Your task to perform on an android device: Add "macbook pro 13 inch" to the cart on newegg.com Image 0: 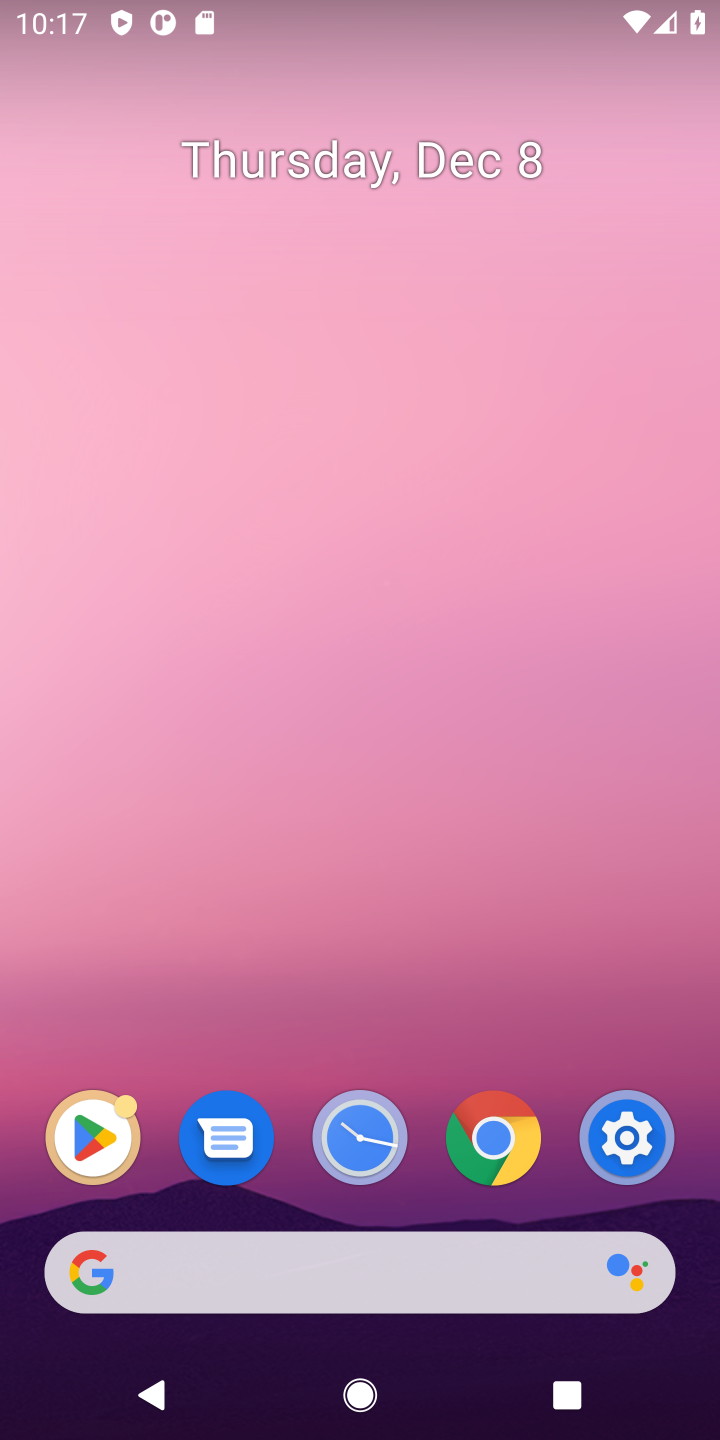
Step 0: click (480, 1145)
Your task to perform on an android device: Add "macbook pro 13 inch" to the cart on newegg.com Image 1: 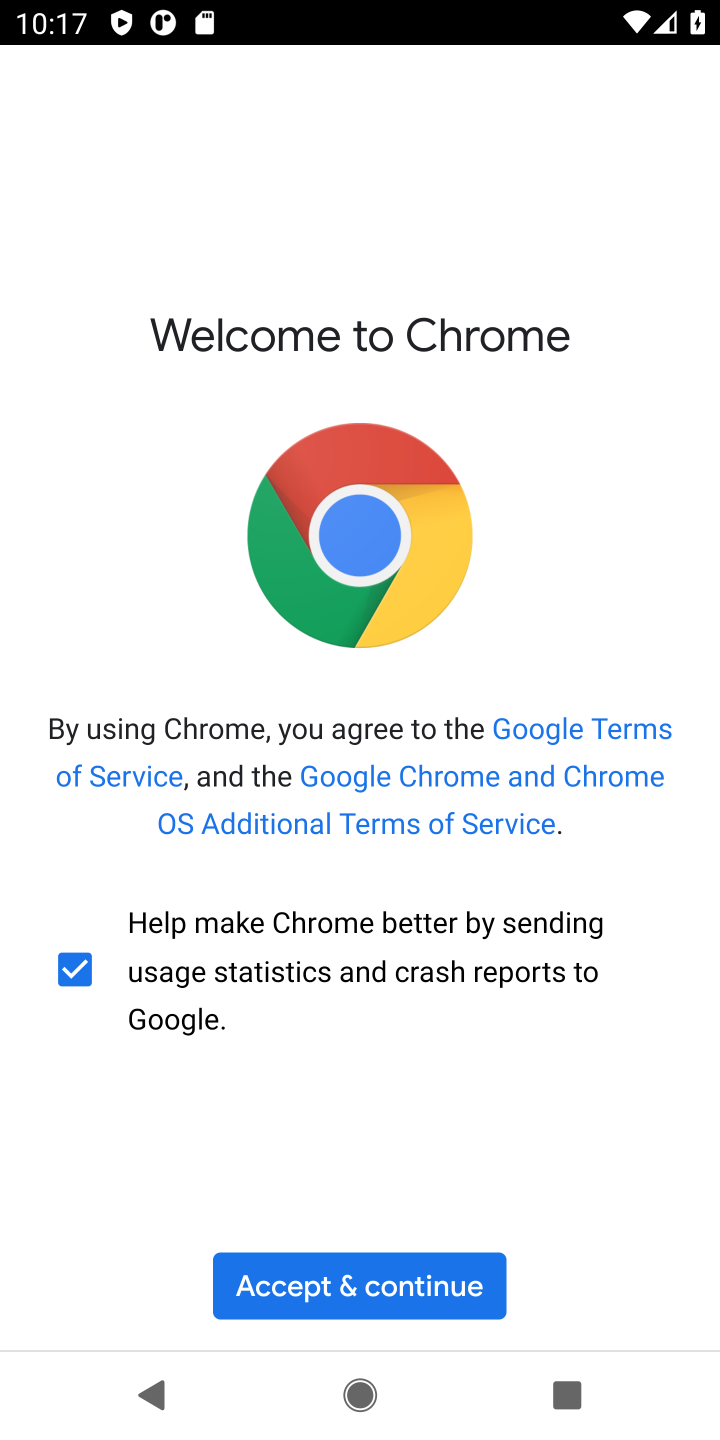
Step 1: click (410, 1274)
Your task to perform on an android device: Add "macbook pro 13 inch" to the cart on newegg.com Image 2: 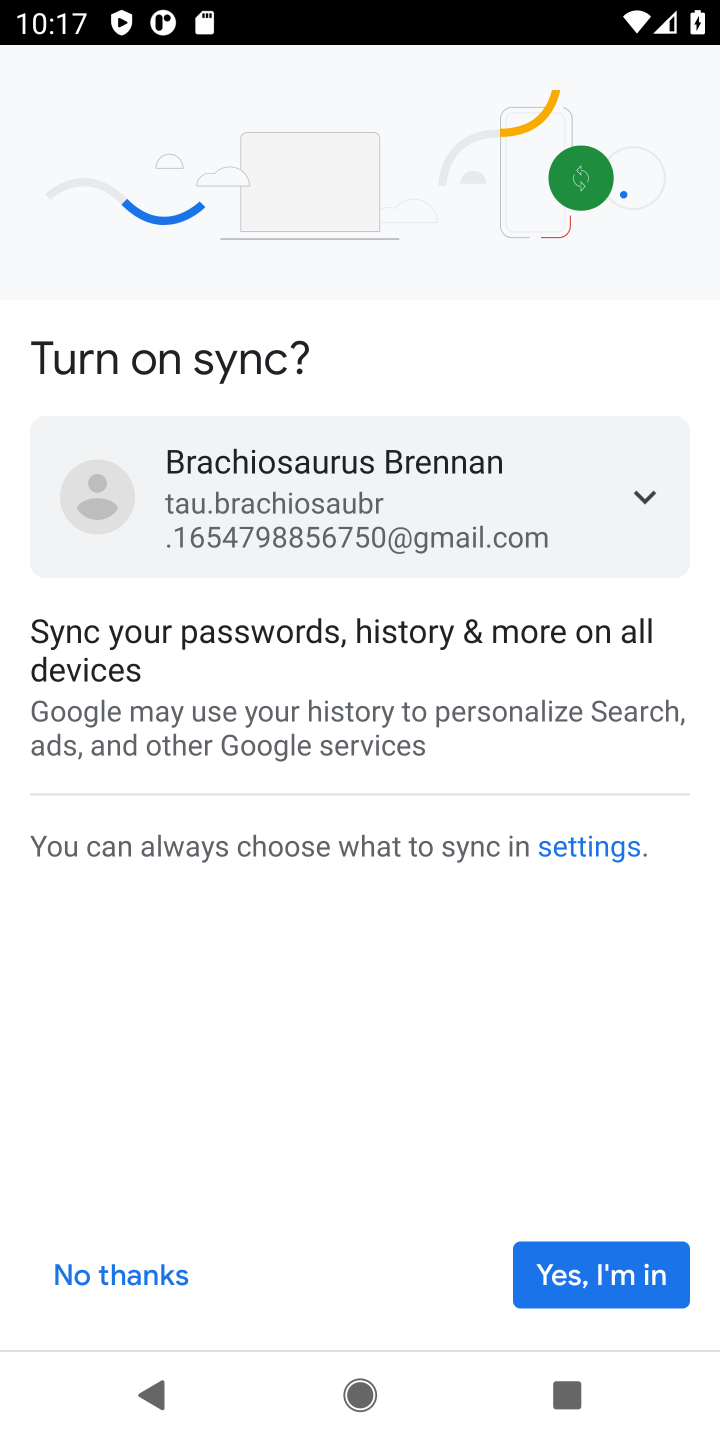
Step 2: click (574, 1261)
Your task to perform on an android device: Add "macbook pro 13 inch" to the cart on newegg.com Image 3: 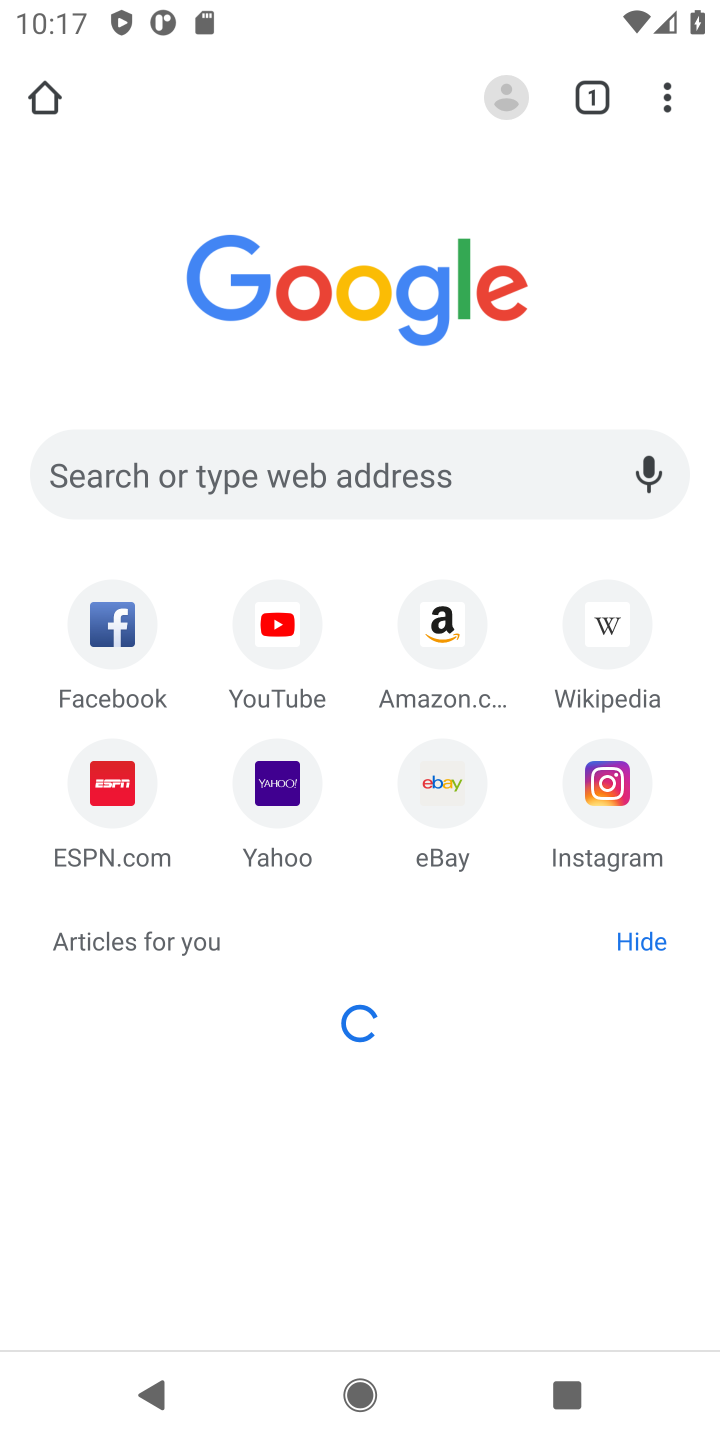
Step 3: click (486, 468)
Your task to perform on an android device: Add "macbook pro 13 inch" to the cart on newegg.com Image 4: 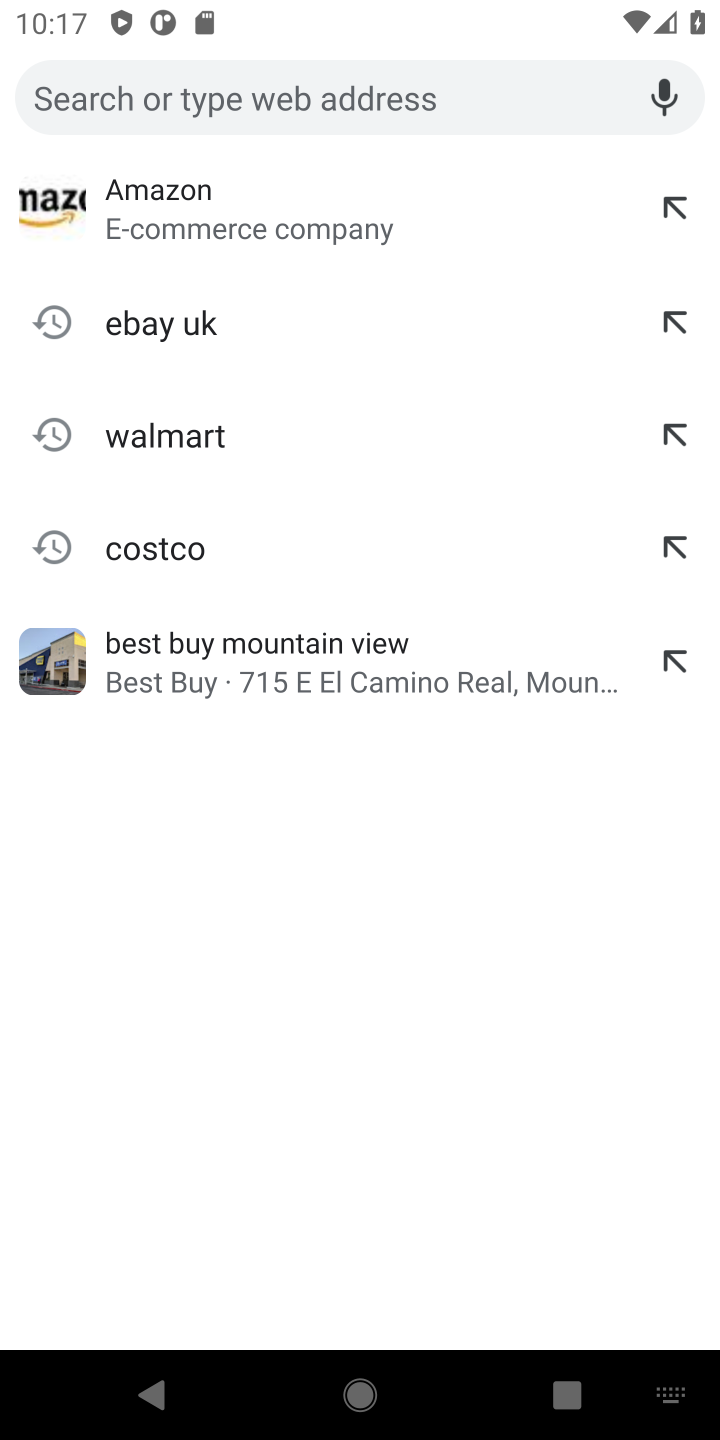
Step 4: type "newegg.com"
Your task to perform on an android device: Add "macbook pro 13 inch" to the cart on newegg.com Image 5: 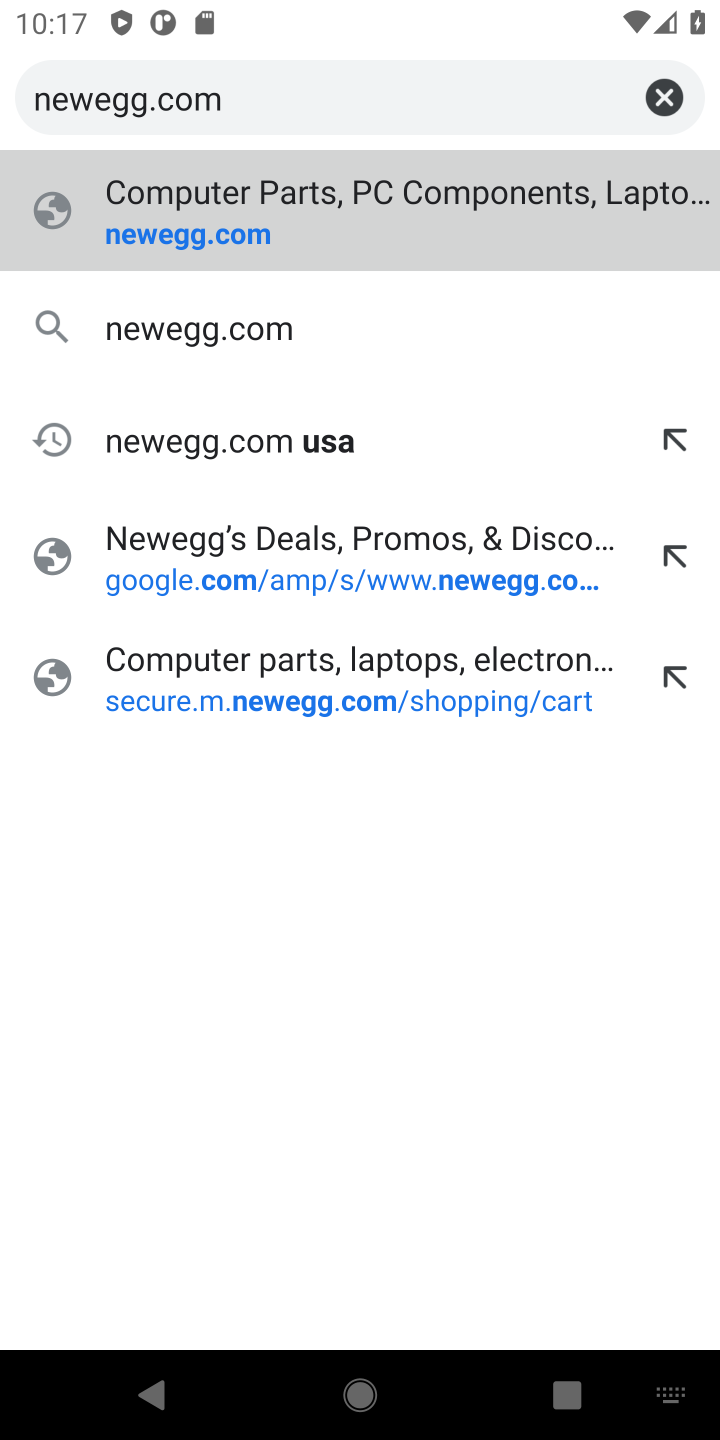
Step 5: press enter
Your task to perform on an android device: Add "macbook pro 13 inch" to the cart on newegg.com Image 6: 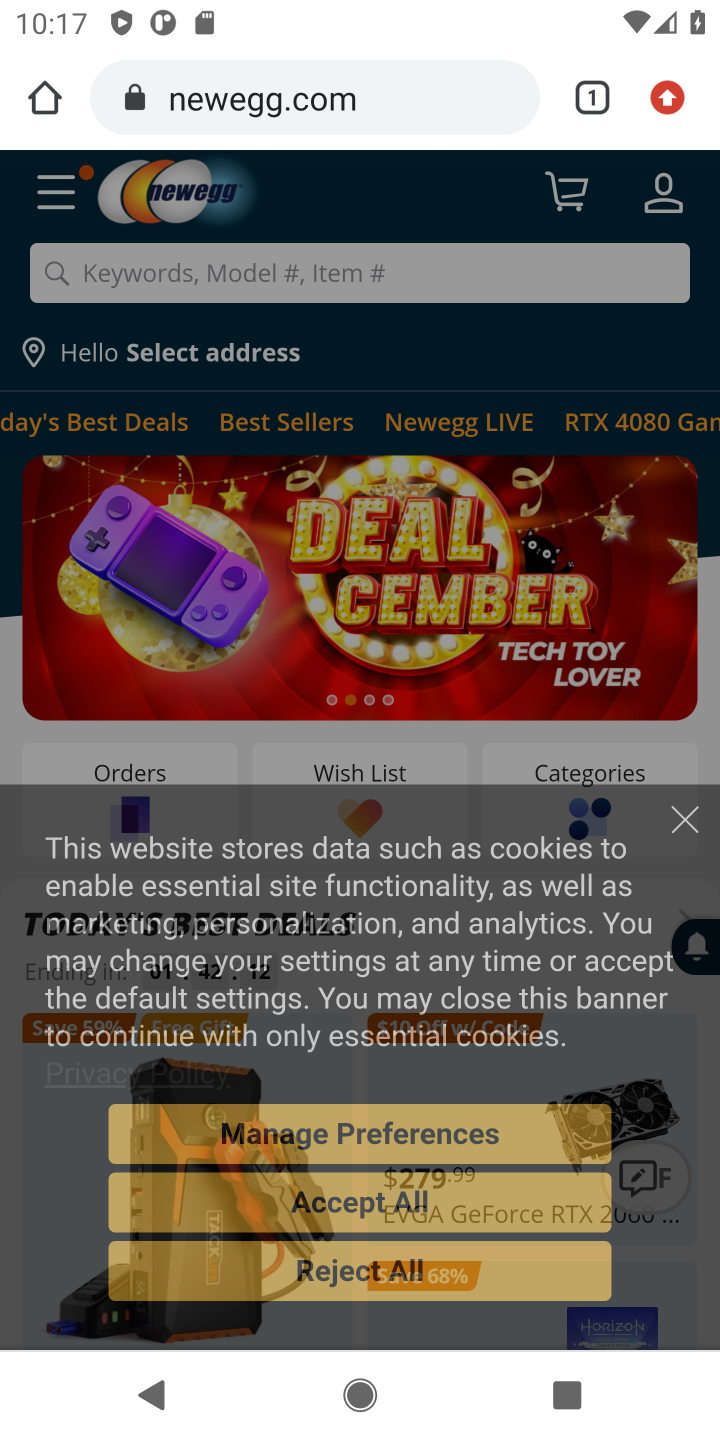
Step 6: click (362, 291)
Your task to perform on an android device: Add "macbook pro 13 inch" to the cart on newegg.com Image 7: 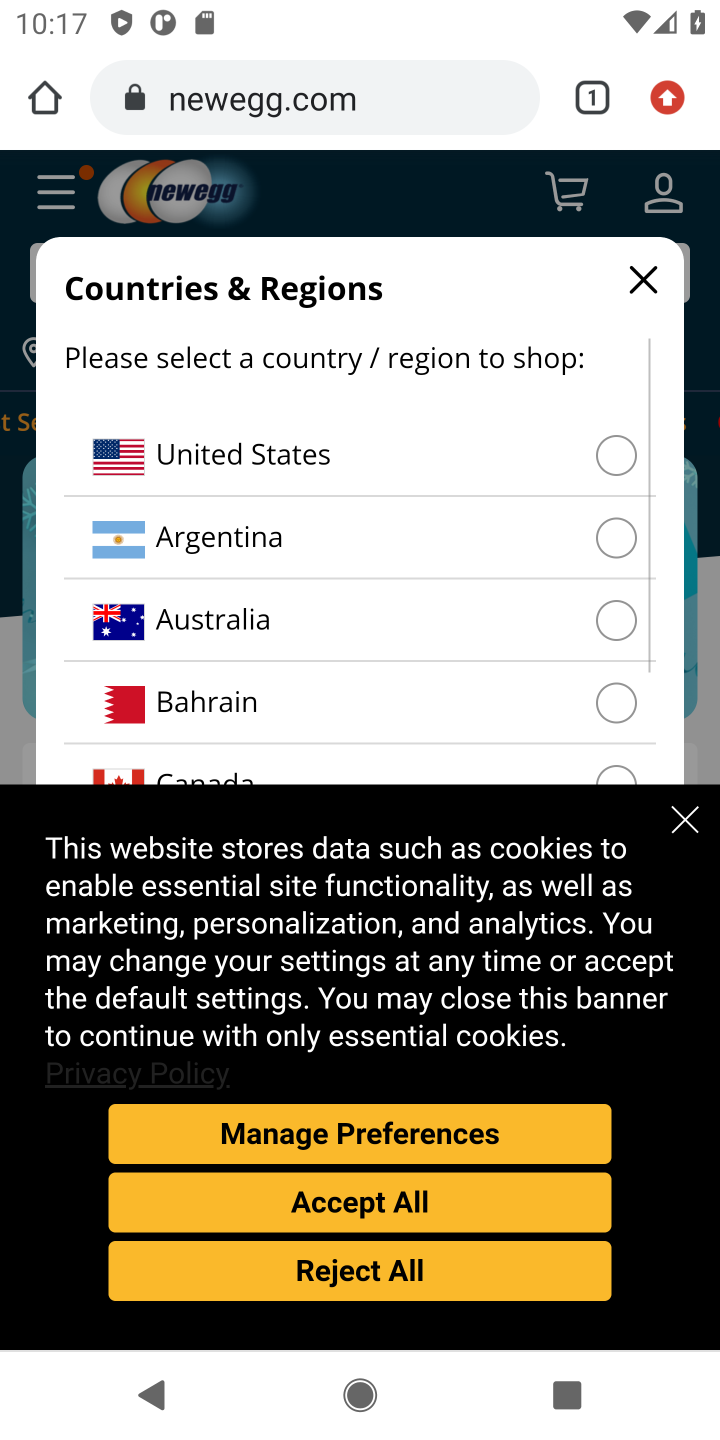
Step 7: click (616, 457)
Your task to perform on an android device: Add "macbook pro 13 inch" to the cart on newegg.com Image 8: 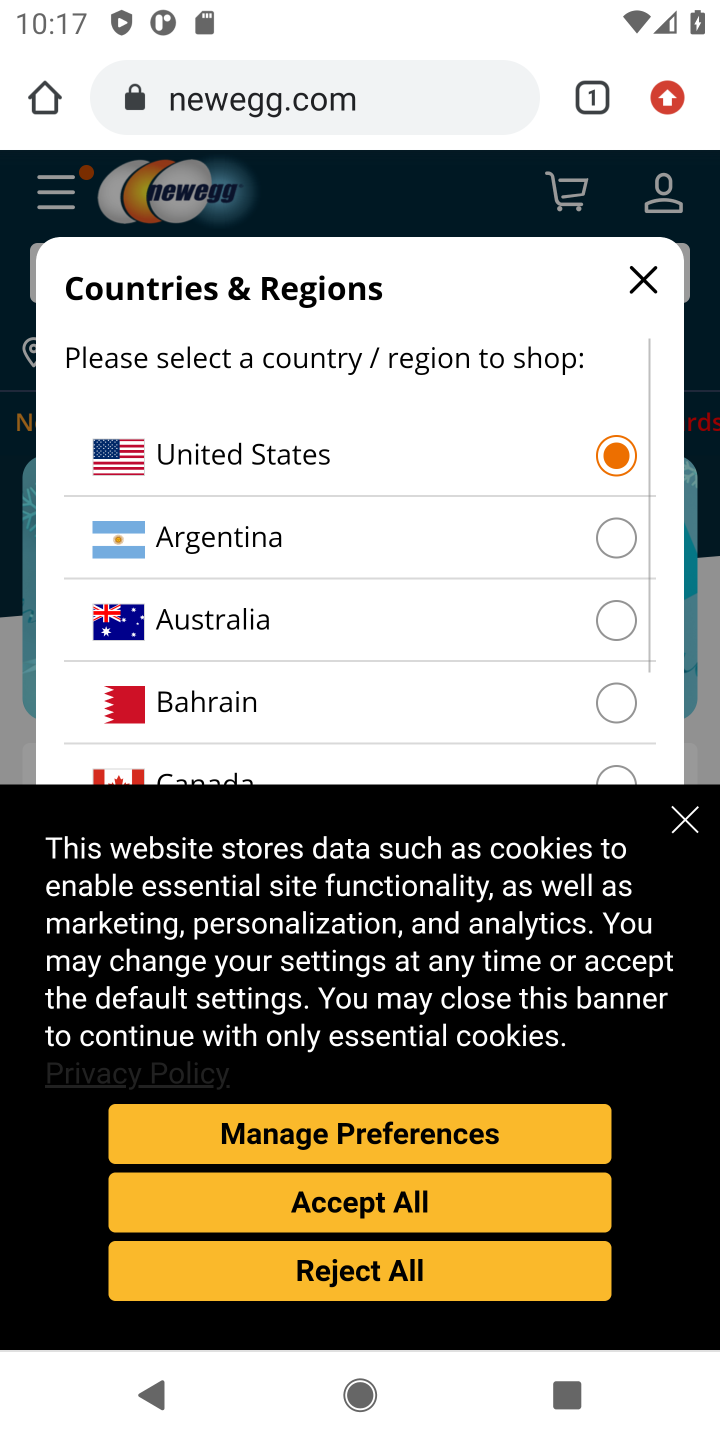
Step 8: click (690, 826)
Your task to perform on an android device: Add "macbook pro 13 inch" to the cart on newegg.com Image 9: 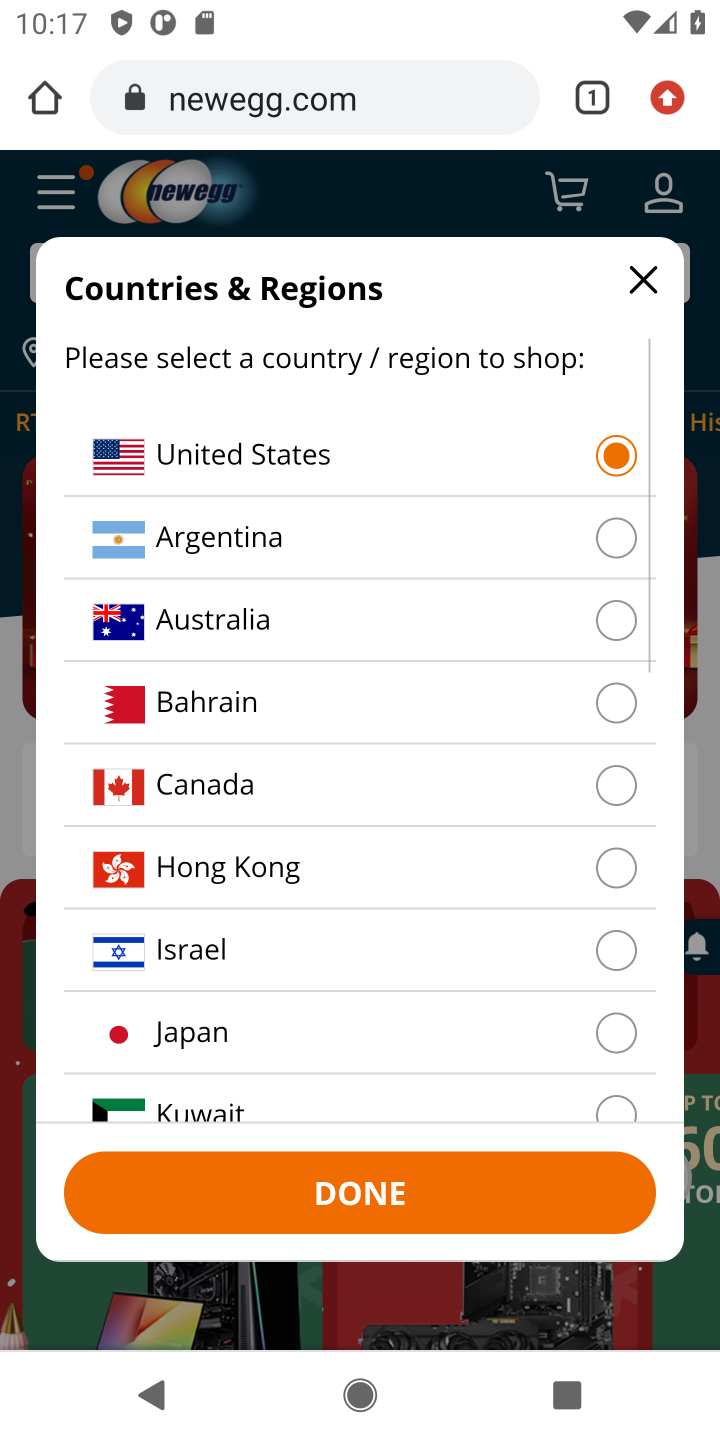
Step 9: click (422, 1200)
Your task to perform on an android device: Add "macbook pro 13 inch" to the cart on newegg.com Image 10: 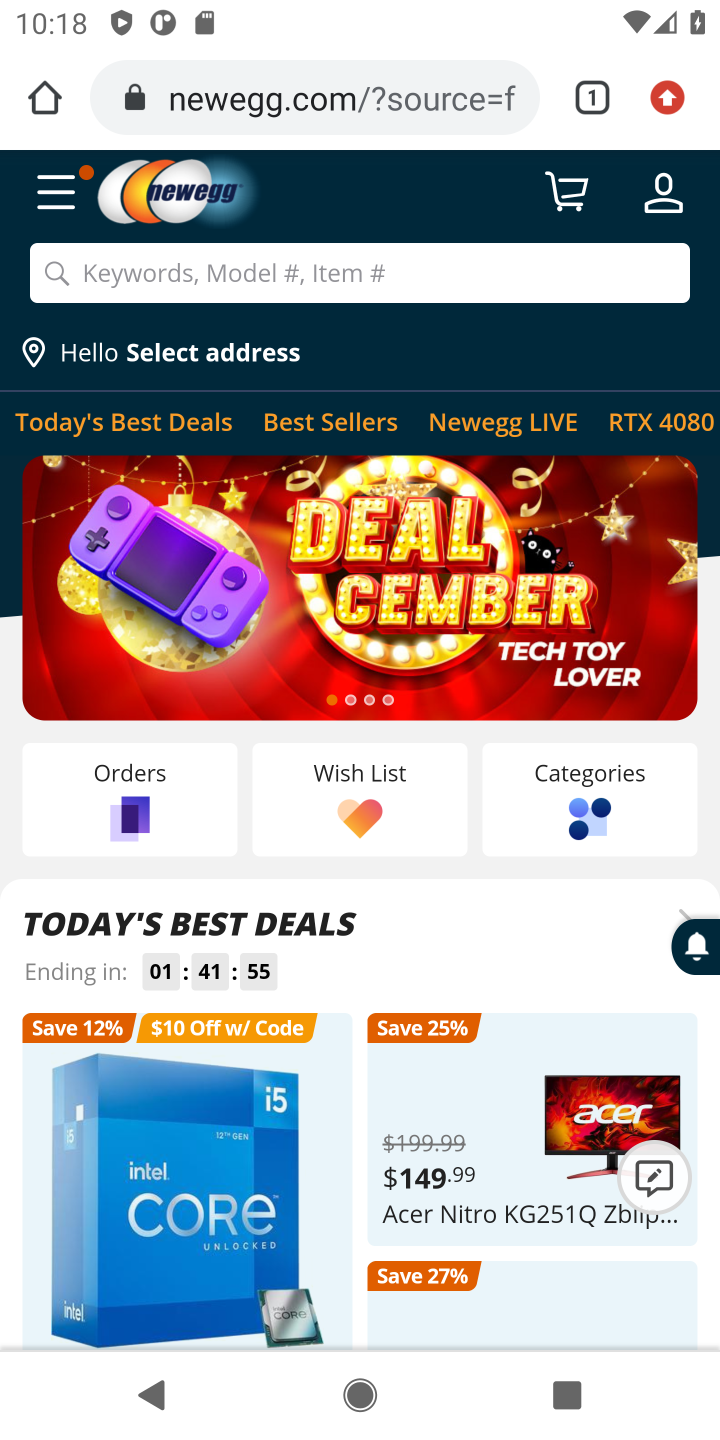
Step 10: click (562, 269)
Your task to perform on an android device: Add "macbook pro 13 inch" to the cart on newegg.com Image 11: 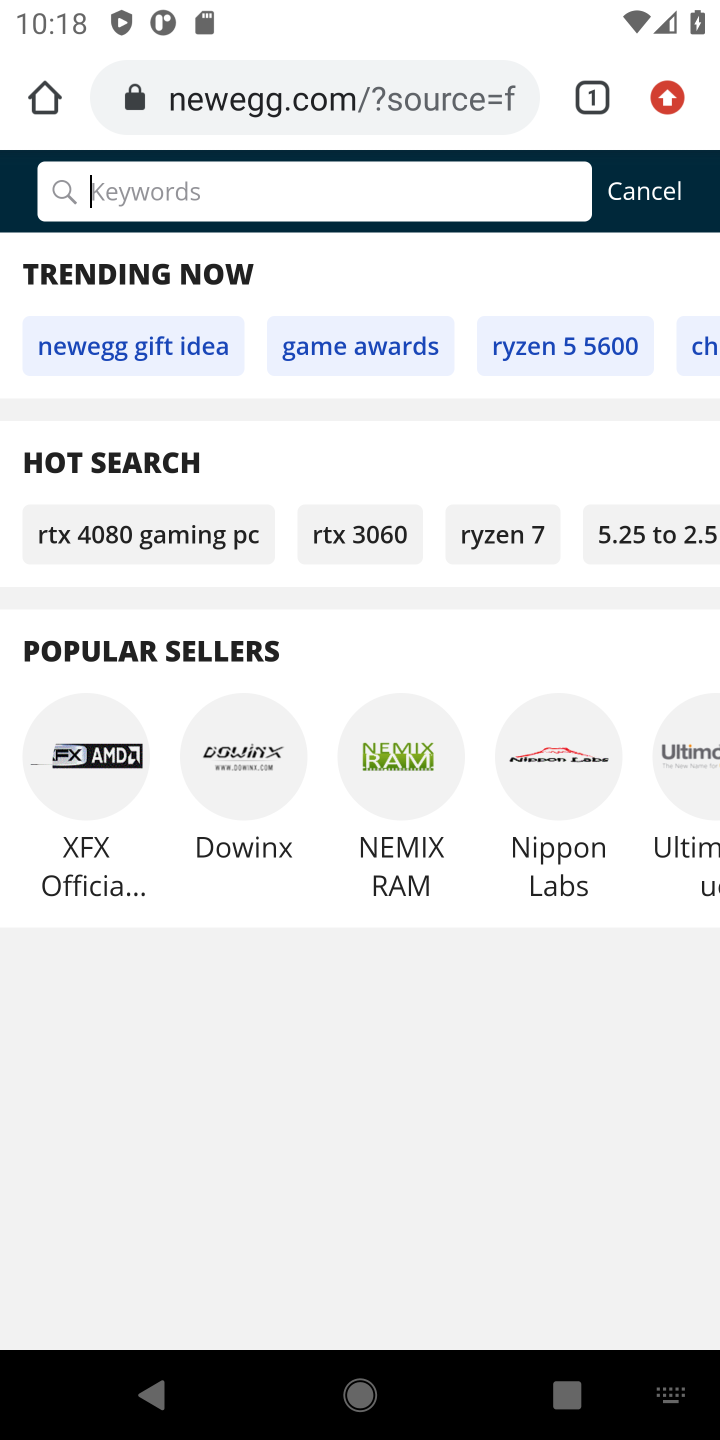
Step 11: type "macbook pro 13 inch"
Your task to perform on an android device: Add "macbook pro 13 inch" to the cart on newegg.com Image 12: 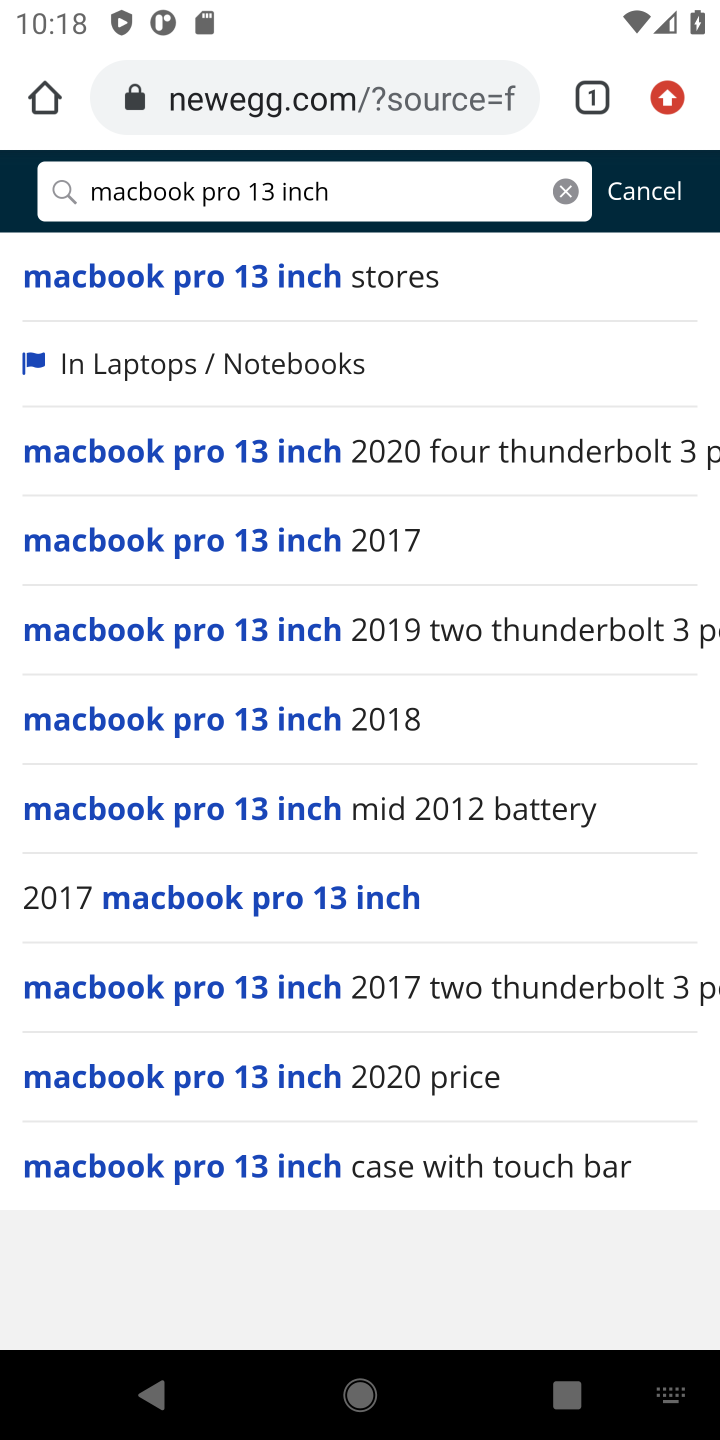
Step 12: click (312, 279)
Your task to perform on an android device: Add "macbook pro 13 inch" to the cart on newegg.com Image 13: 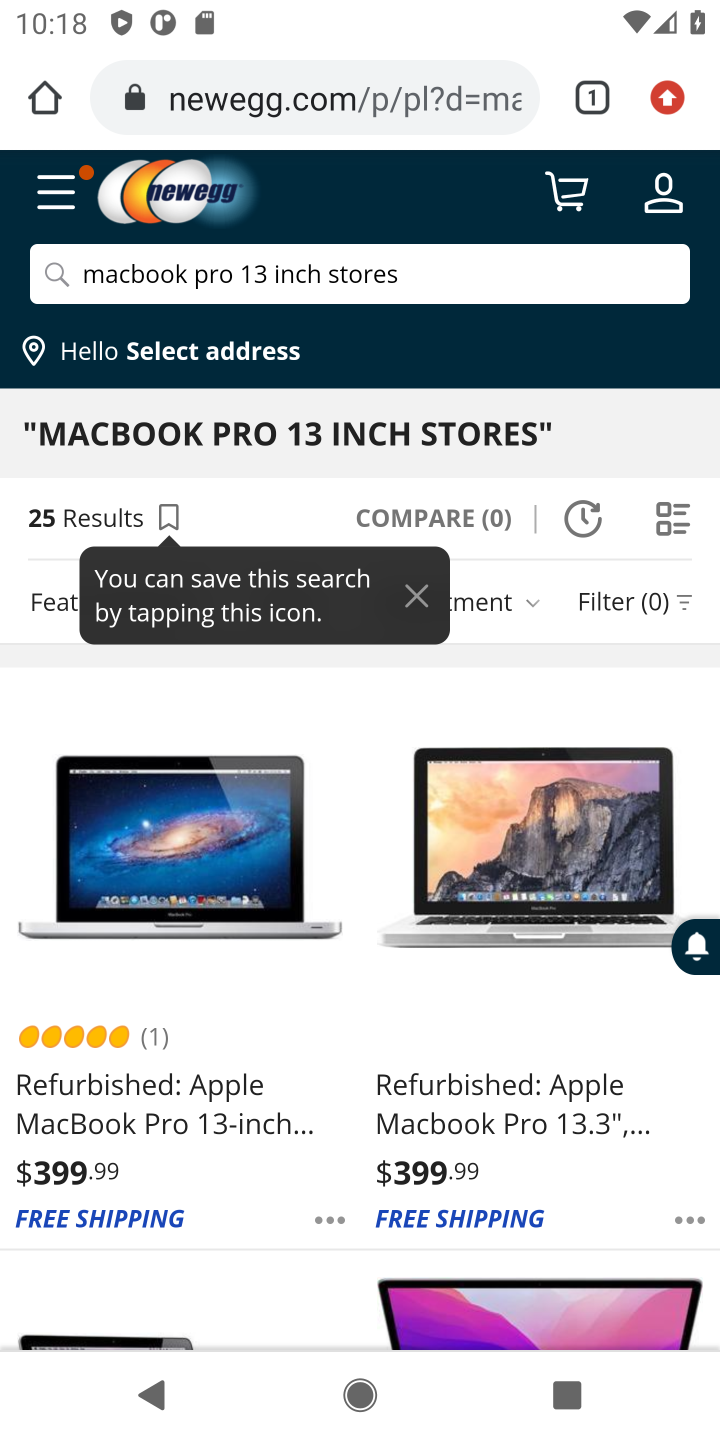
Step 13: click (204, 870)
Your task to perform on an android device: Add "macbook pro 13 inch" to the cart on newegg.com Image 14: 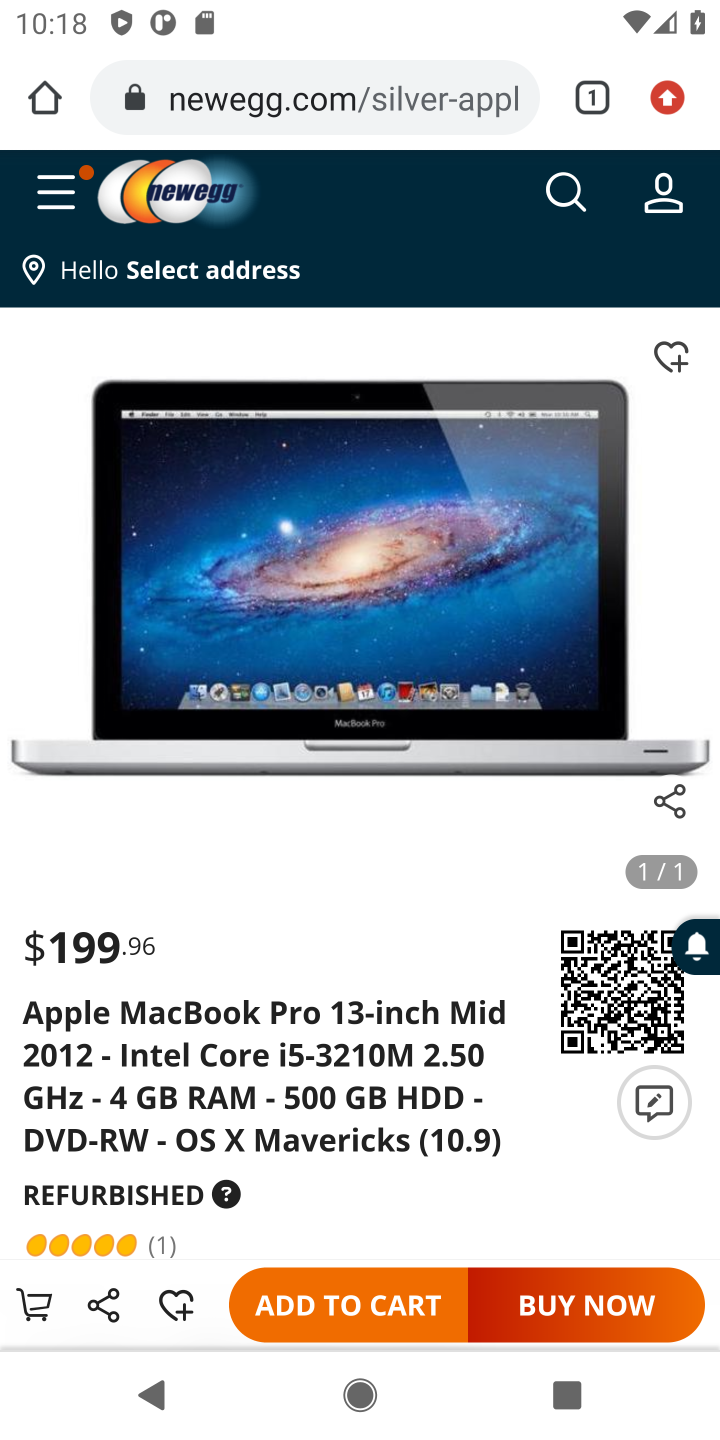
Step 14: click (333, 1313)
Your task to perform on an android device: Add "macbook pro 13 inch" to the cart on newegg.com Image 15: 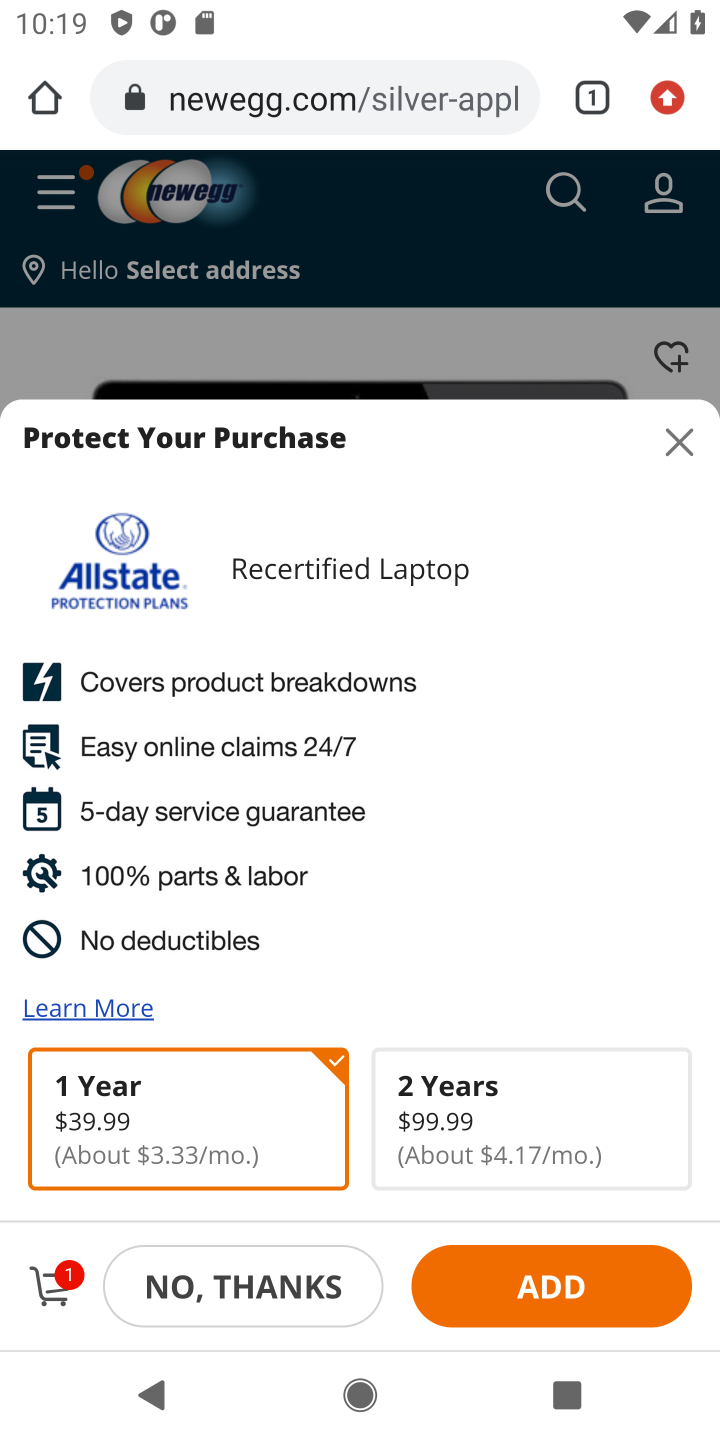
Step 15: click (51, 1297)
Your task to perform on an android device: Add "macbook pro 13 inch" to the cart on newegg.com Image 16: 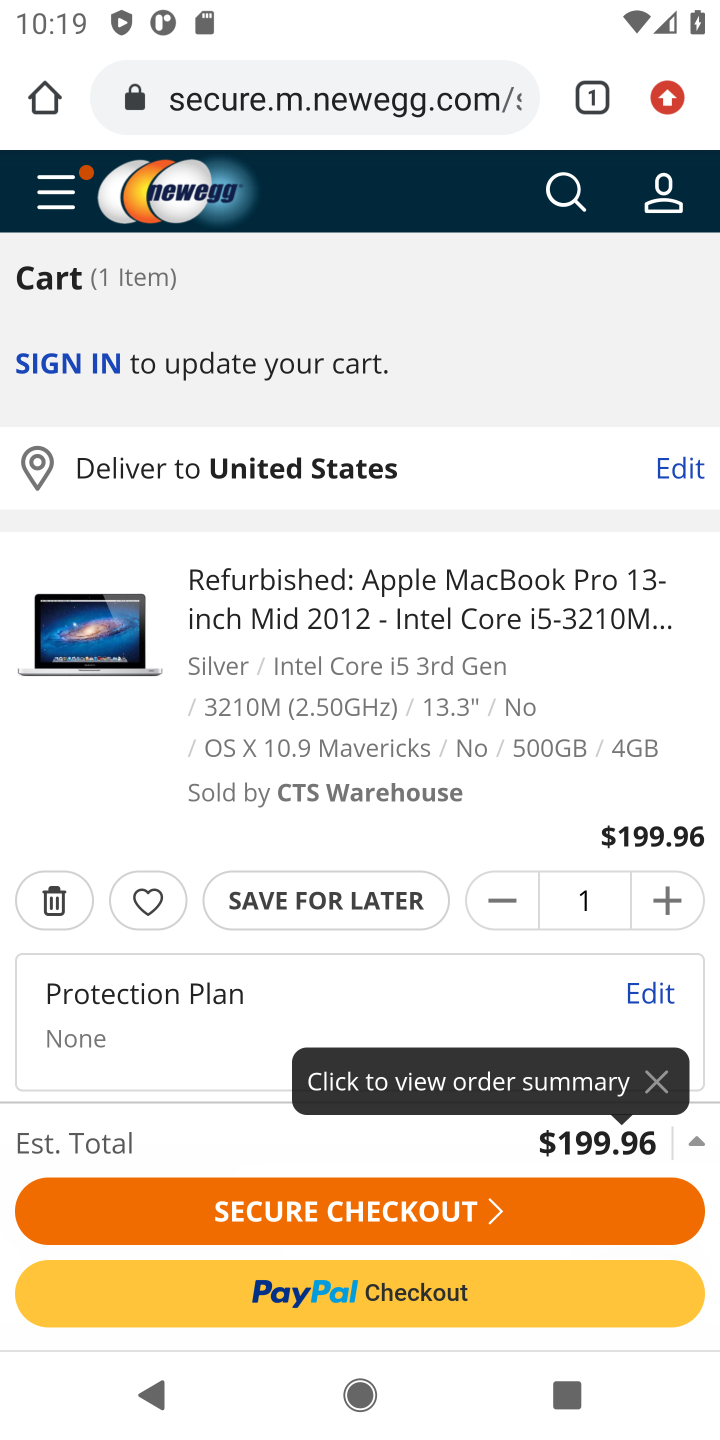
Step 16: task complete